Your task to perform on an android device: View the shopping cart on newegg.com. Add panasonic triple a to the cart on newegg.com, then select checkout. Image 0: 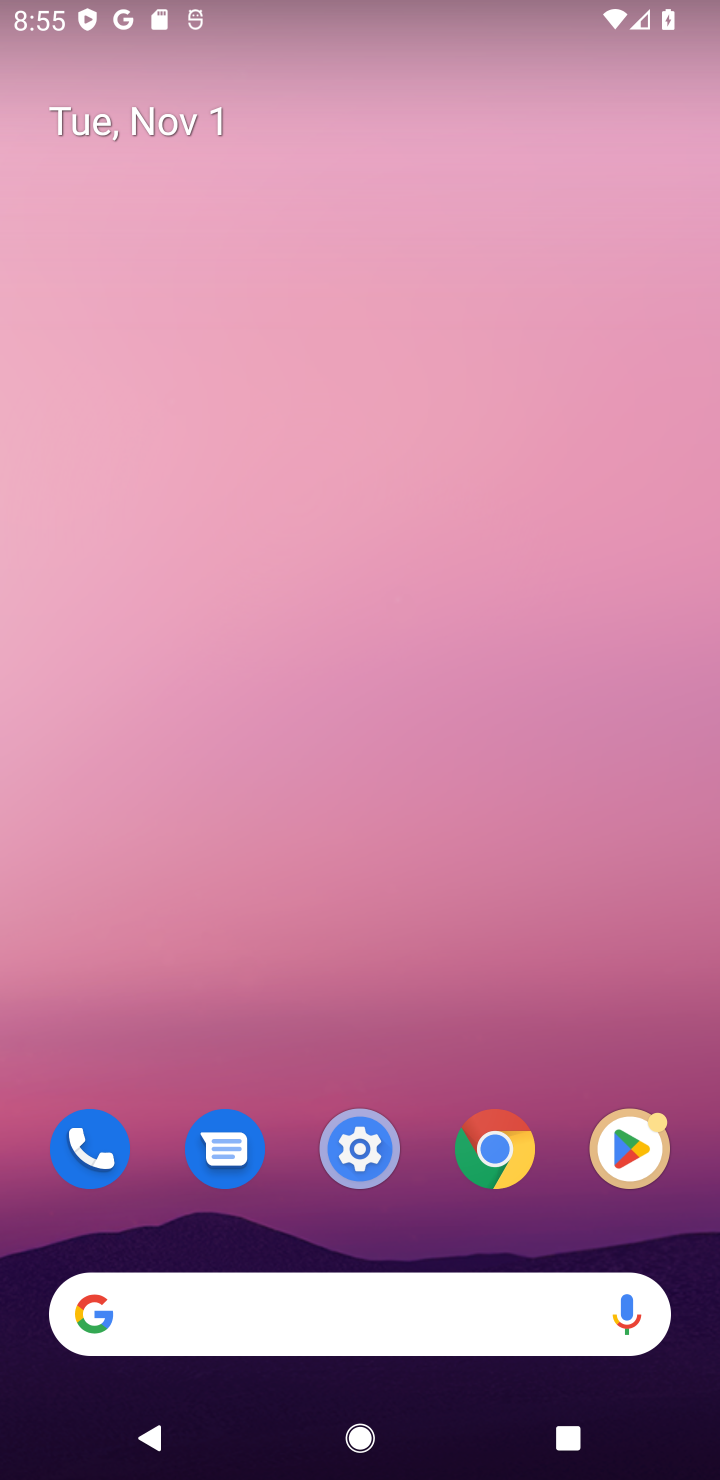
Step 0: press home button
Your task to perform on an android device: View the shopping cart on newegg.com. Add panasonic triple a to the cart on newegg.com, then select checkout. Image 1: 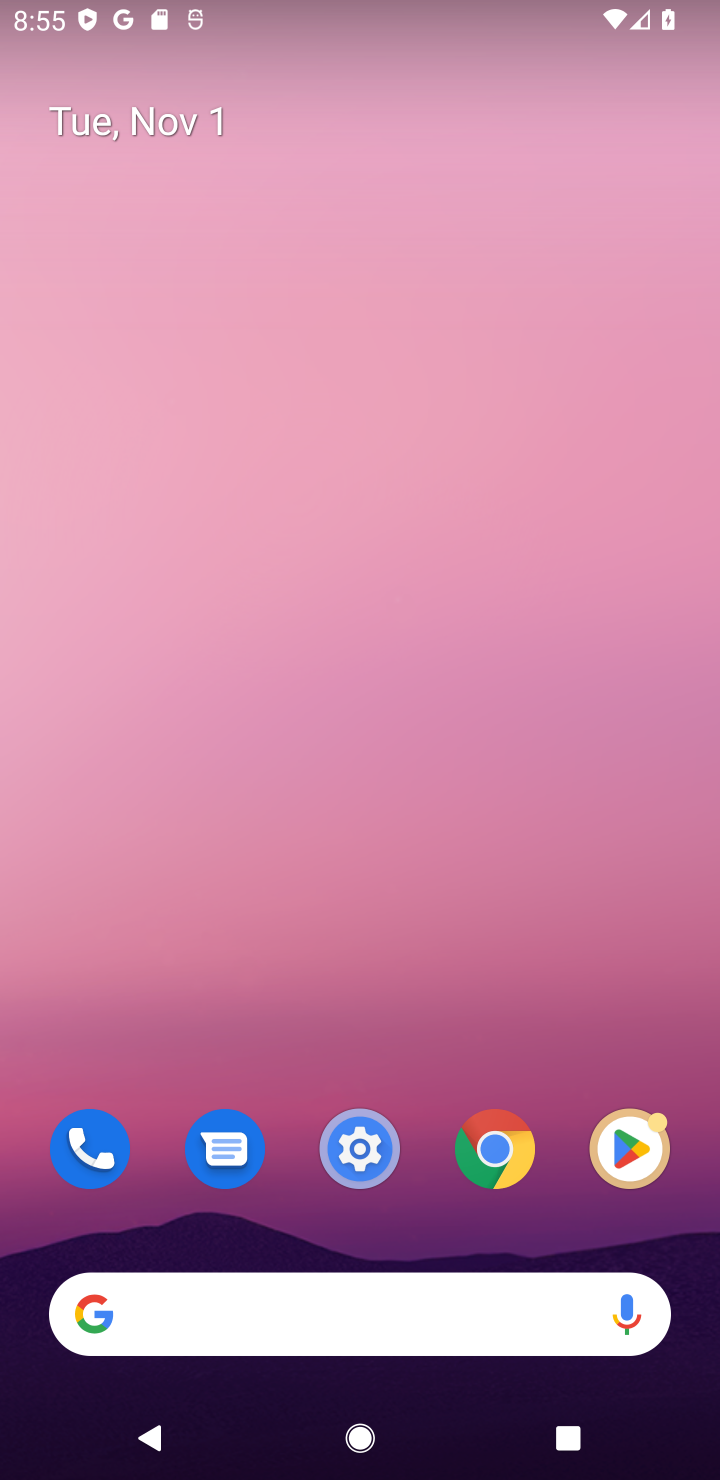
Step 1: click (137, 1300)
Your task to perform on an android device: View the shopping cart on newegg.com. Add panasonic triple a to the cart on newegg.com, then select checkout. Image 2: 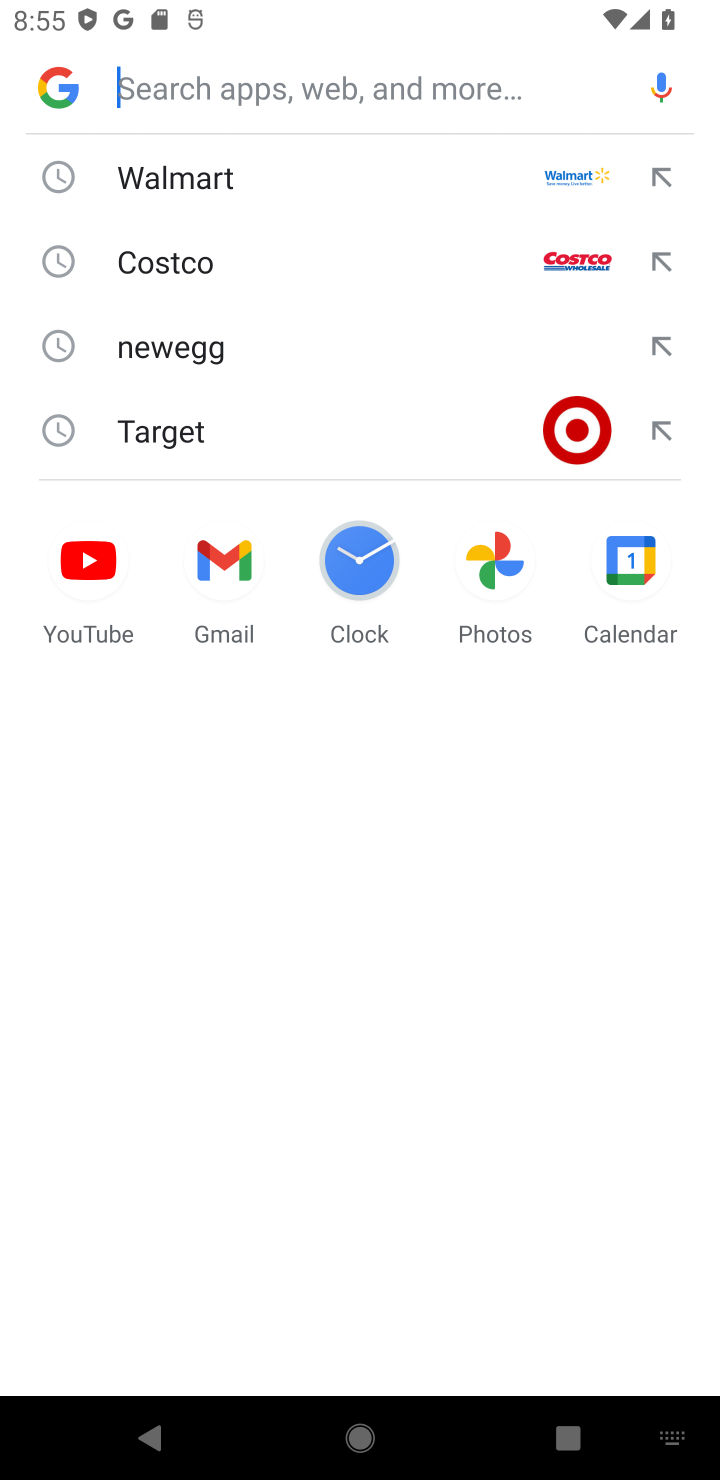
Step 2: type "newegg.com"
Your task to perform on an android device: View the shopping cart on newegg.com. Add panasonic triple a to the cart on newegg.com, then select checkout. Image 3: 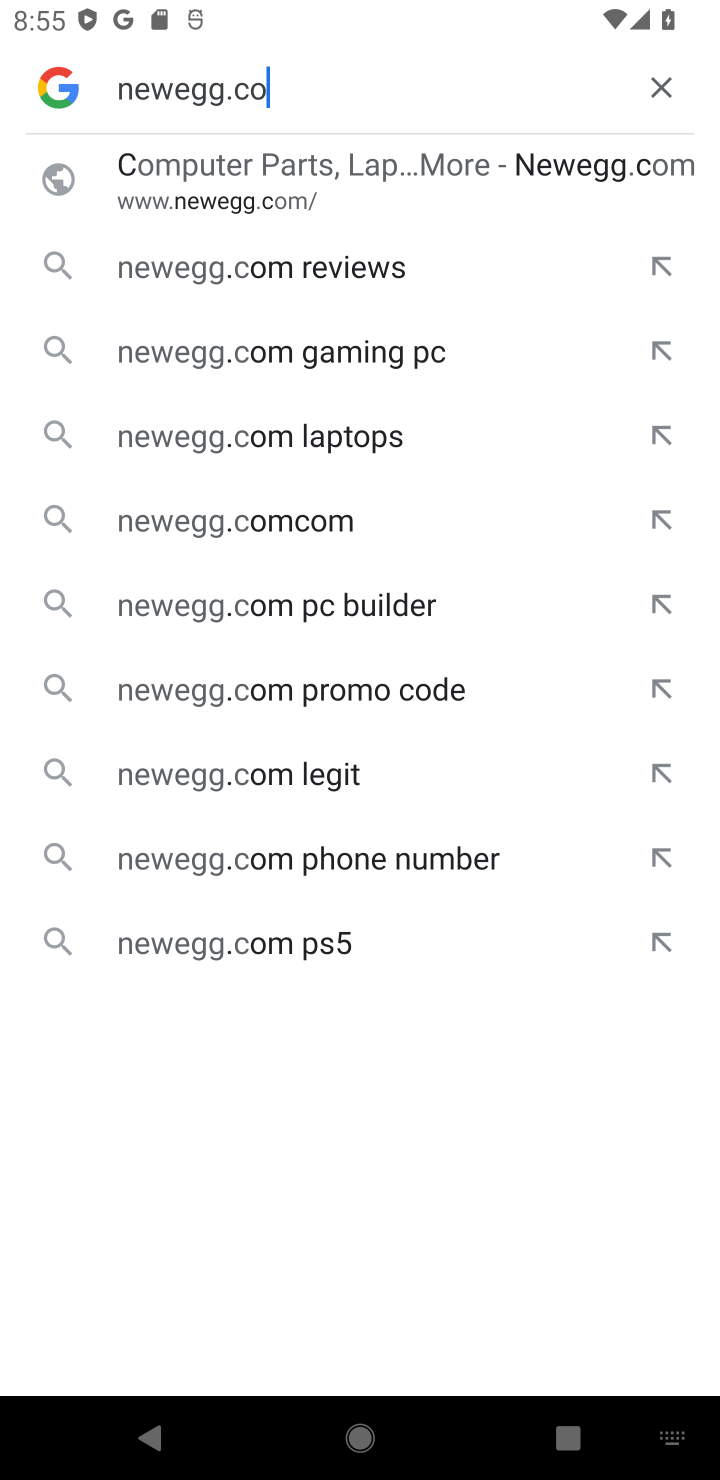
Step 3: press enter
Your task to perform on an android device: View the shopping cart on newegg.com. Add panasonic triple a to the cart on newegg.com, then select checkout. Image 4: 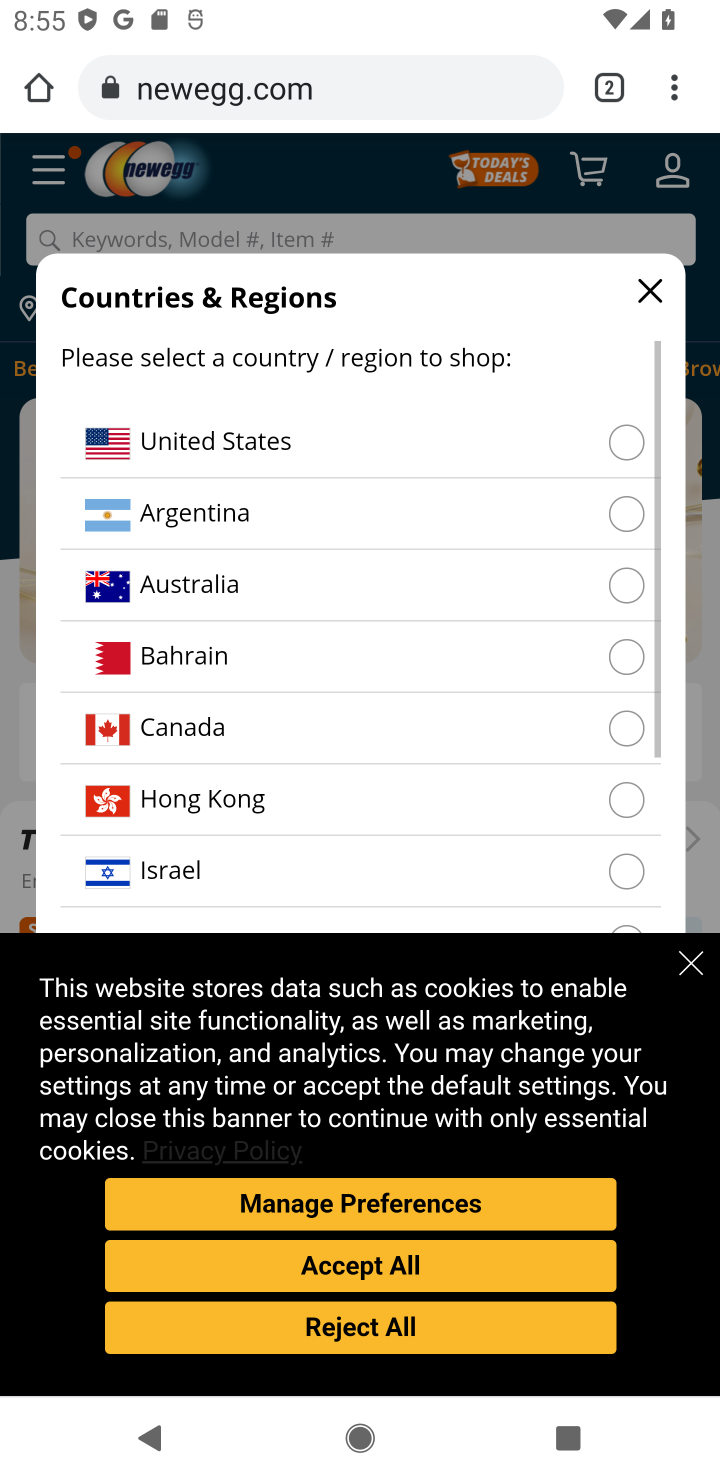
Step 4: click (647, 282)
Your task to perform on an android device: View the shopping cart on newegg.com. Add panasonic triple a to the cart on newegg.com, then select checkout. Image 5: 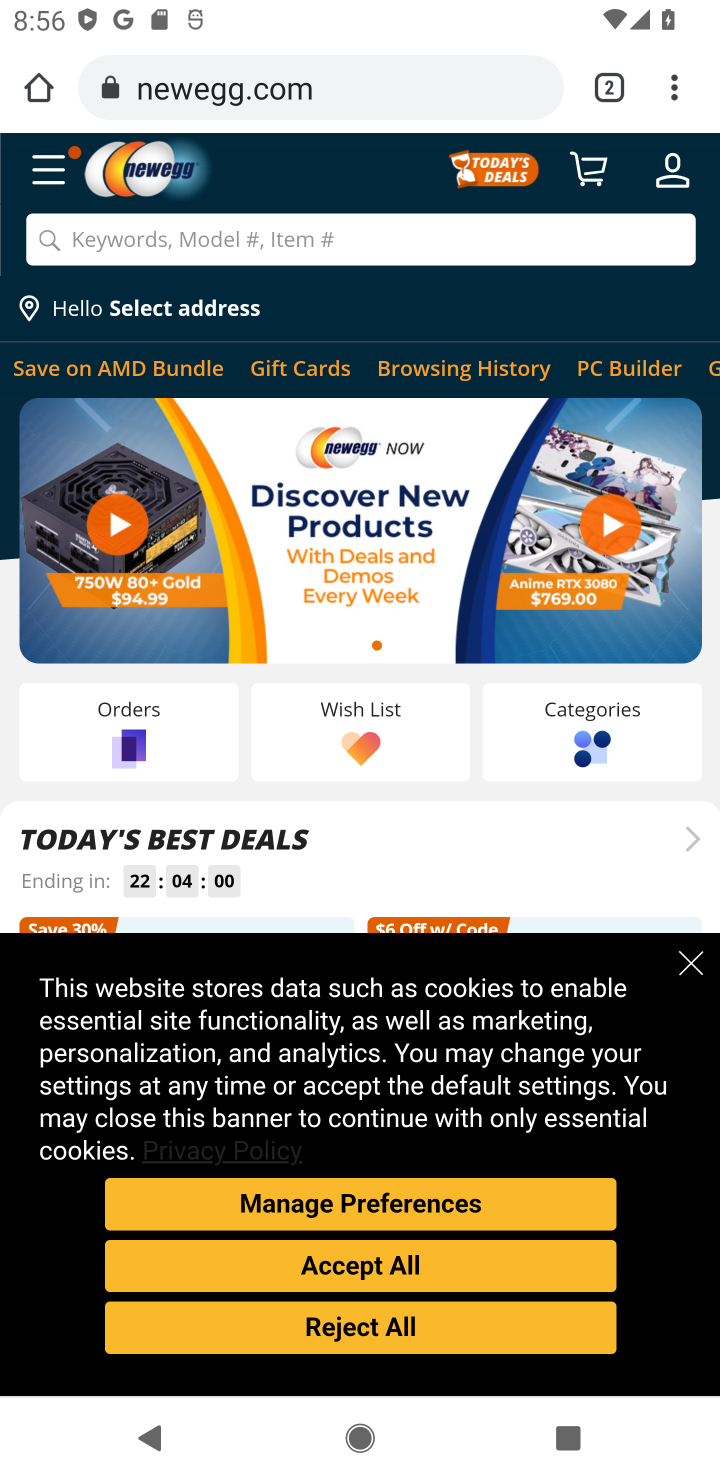
Step 5: click (338, 1266)
Your task to perform on an android device: View the shopping cart on newegg.com. Add panasonic triple a to the cart on newegg.com, then select checkout. Image 6: 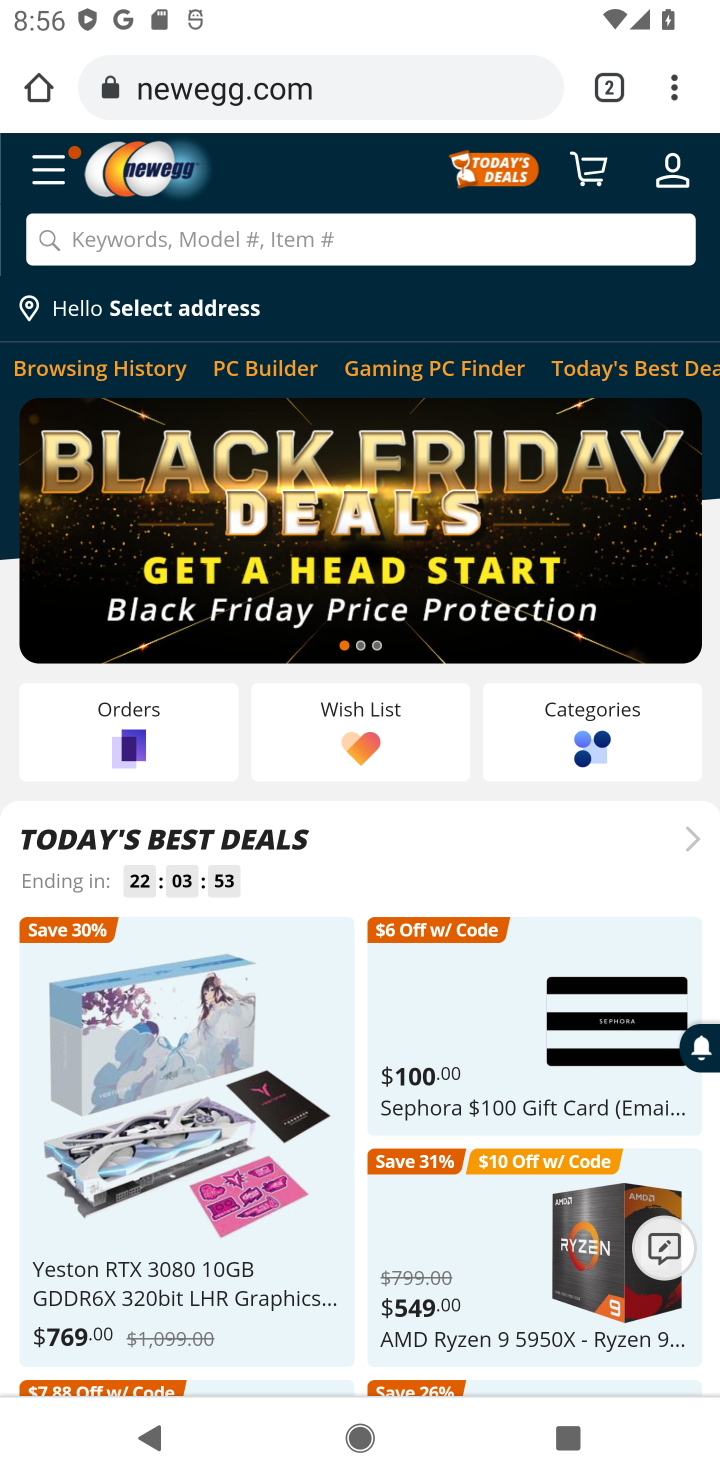
Step 6: click (586, 168)
Your task to perform on an android device: View the shopping cart on newegg.com. Add panasonic triple a to the cart on newegg.com, then select checkout. Image 7: 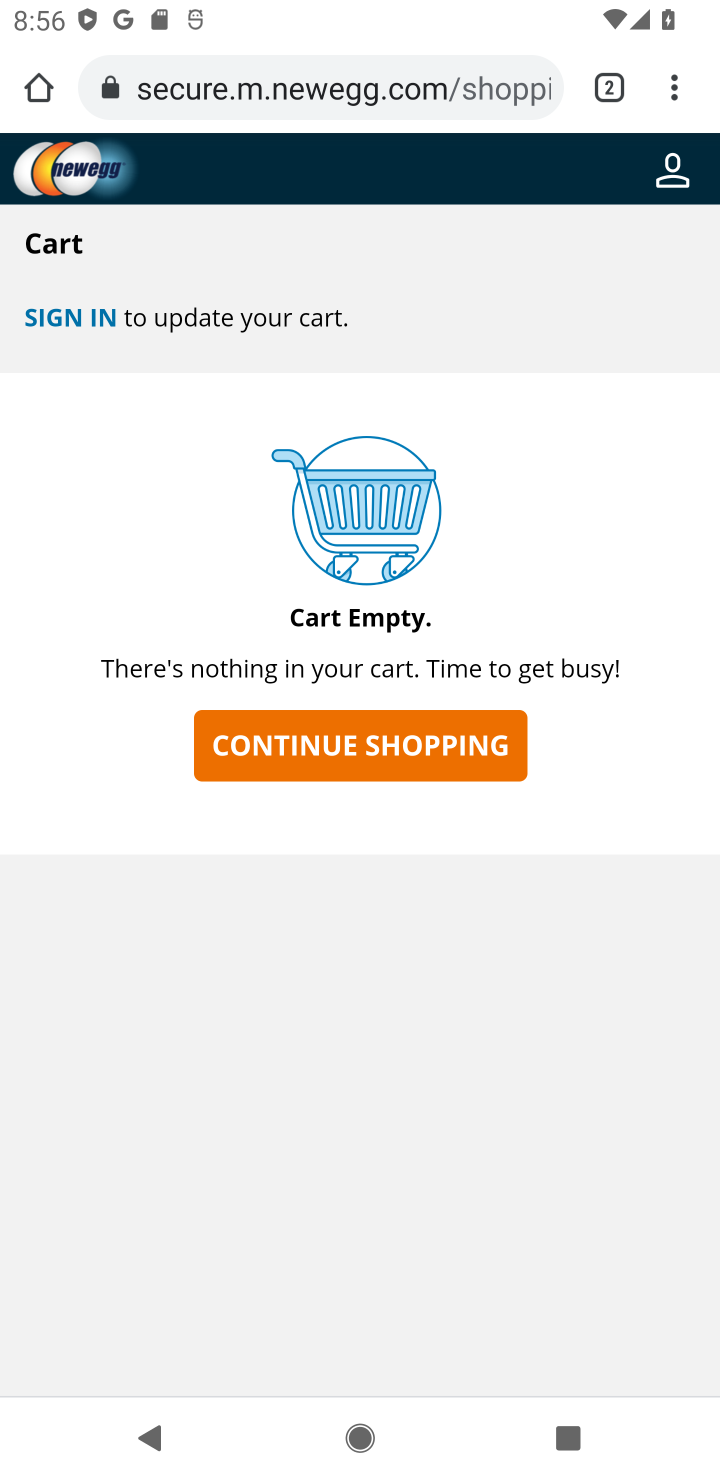
Step 7: press back button
Your task to perform on an android device: View the shopping cart on newegg.com. Add panasonic triple a to the cart on newegg.com, then select checkout. Image 8: 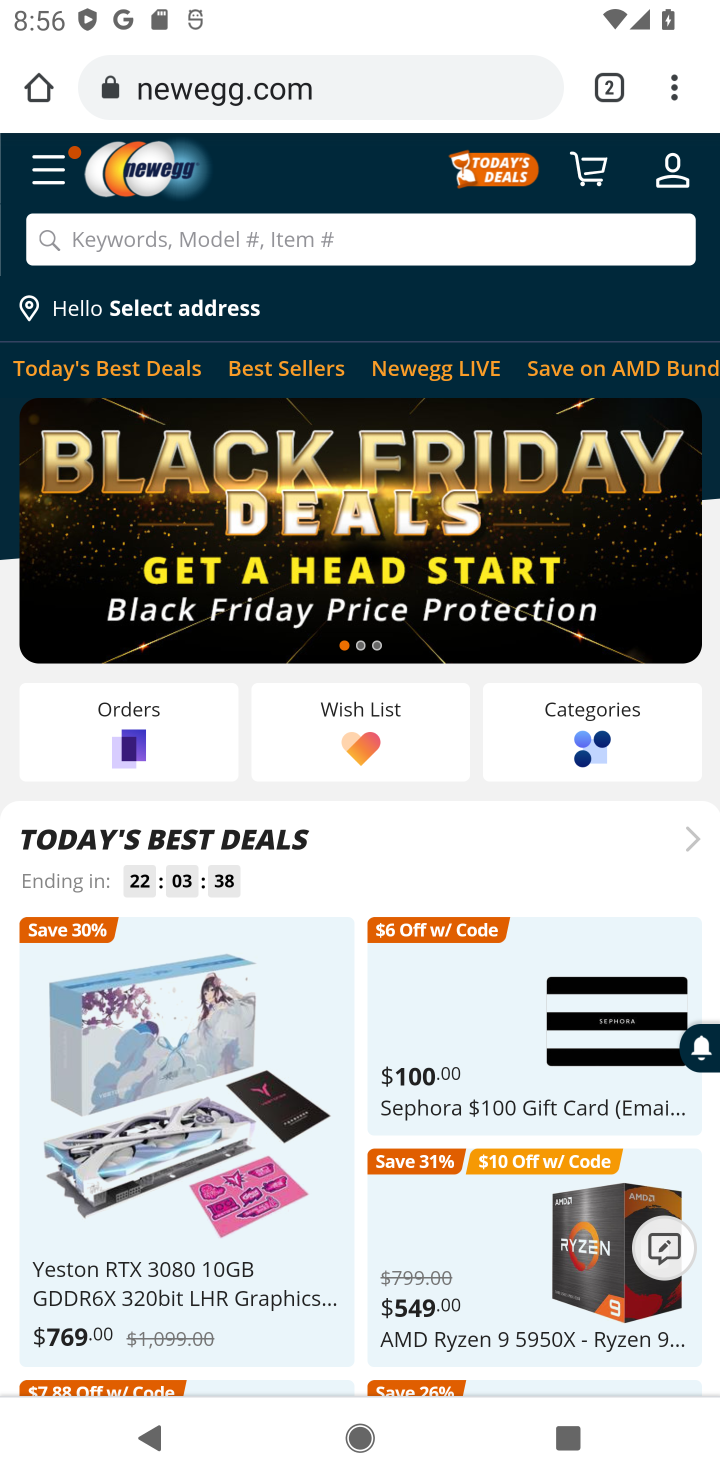
Step 8: click (197, 230)
Your task to perform on an android device: View the shopping cart on newegg.com. Add panasonic triple a to the cart on newegg.com, then select checkout. Image 9: 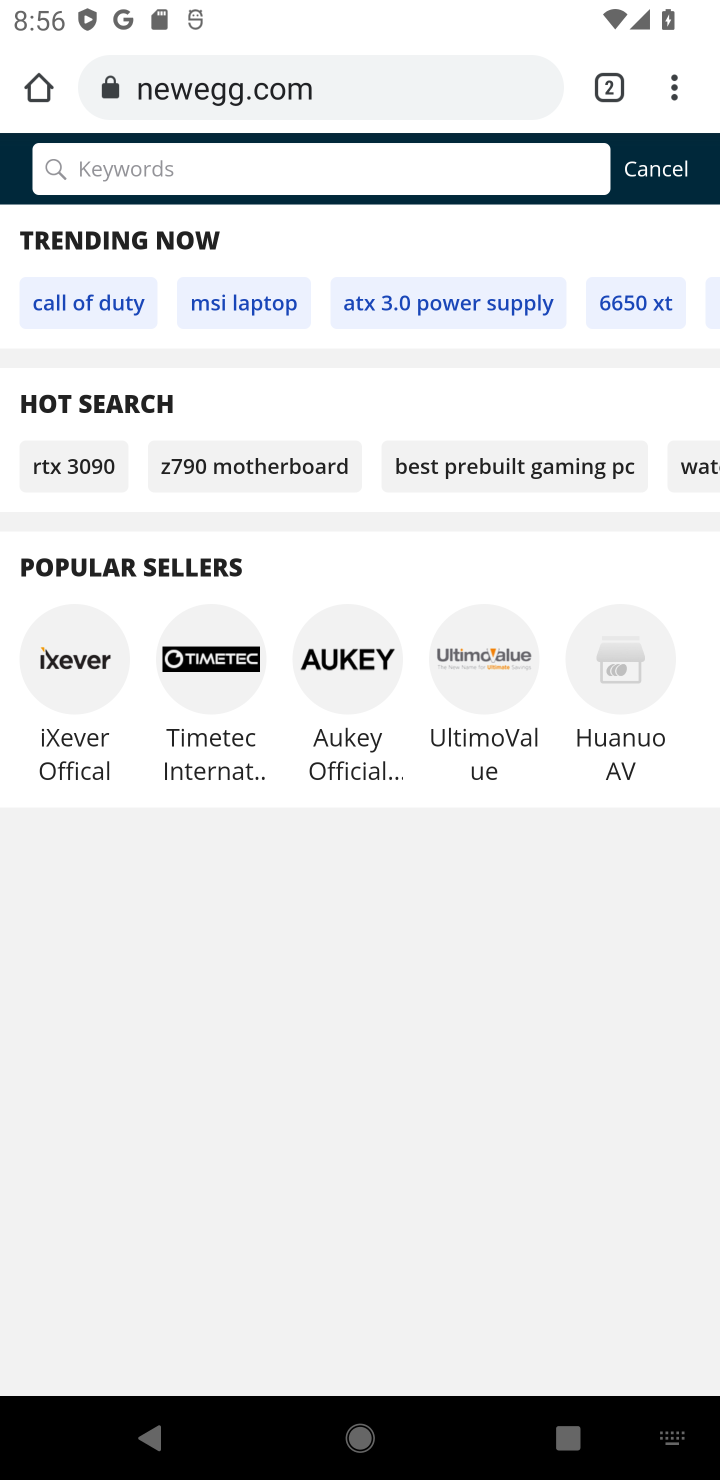
Step 9: type "panasonic triple a"
Your task to perform on an android device: View the shopping cart on newegg.com. Add panasonic triple a to the cart on newegg.com, then select checkout. Image 10: 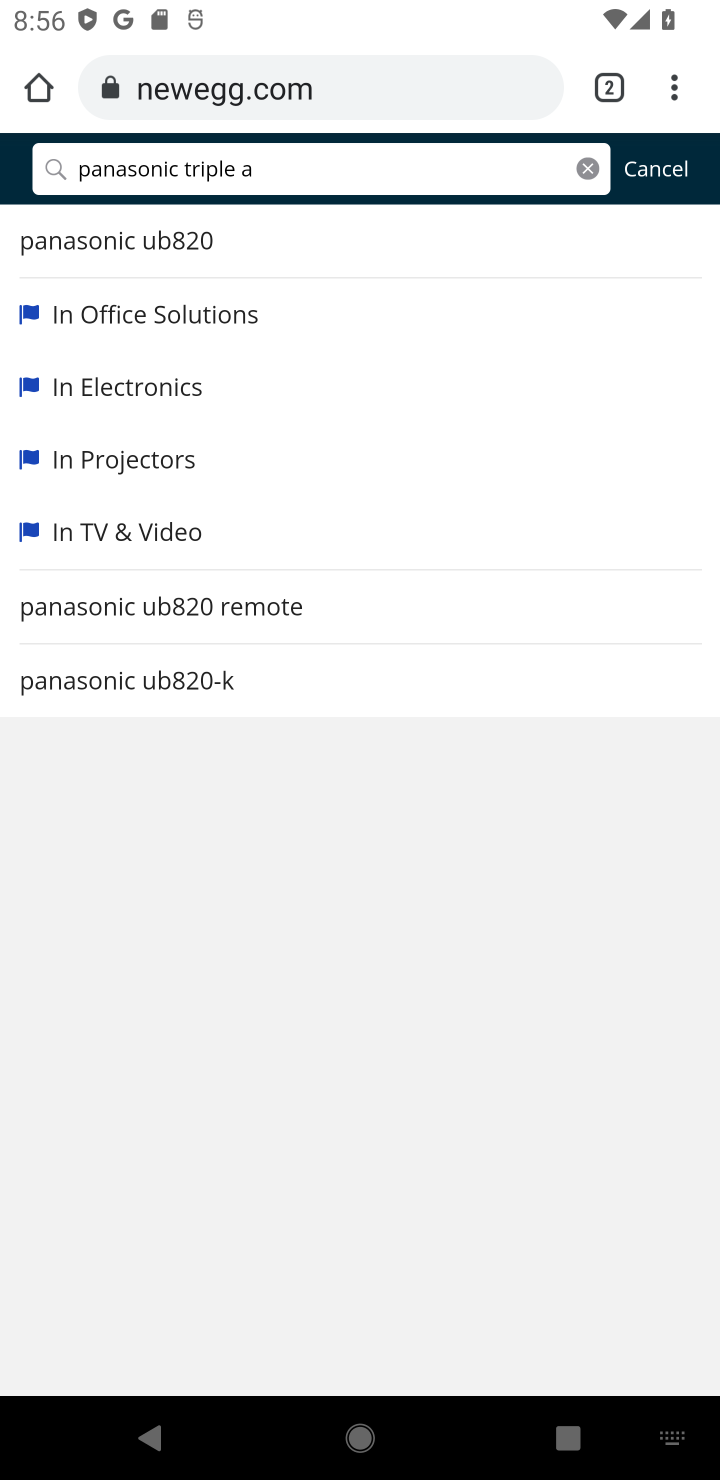
Step 10: press enter
Your task to perform on an android device: View the shopping cart on newegg.com. Add panasonic triple a to the cart on newegg.com, then select checkout. Image 11: 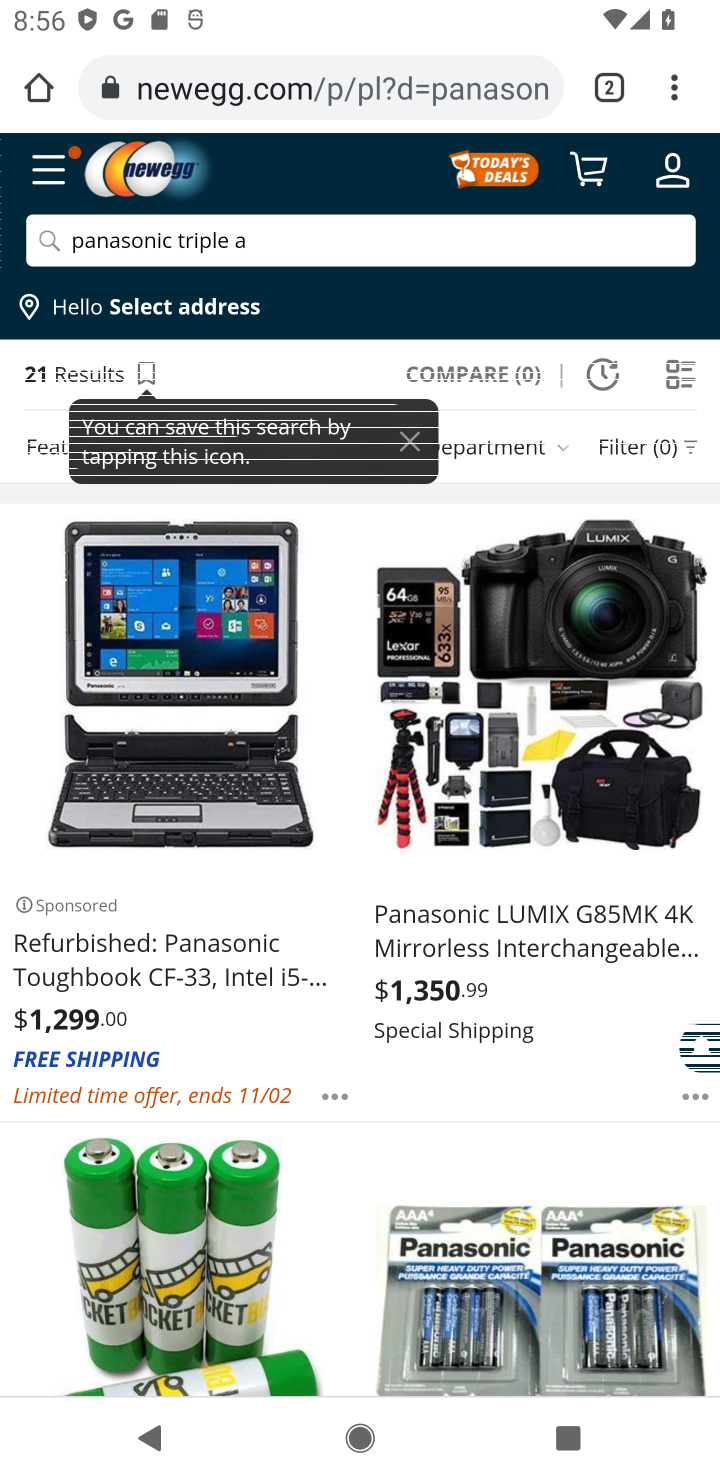
Step 11: task complete